Your task to perform on an android device: turn off wifi Image 0: 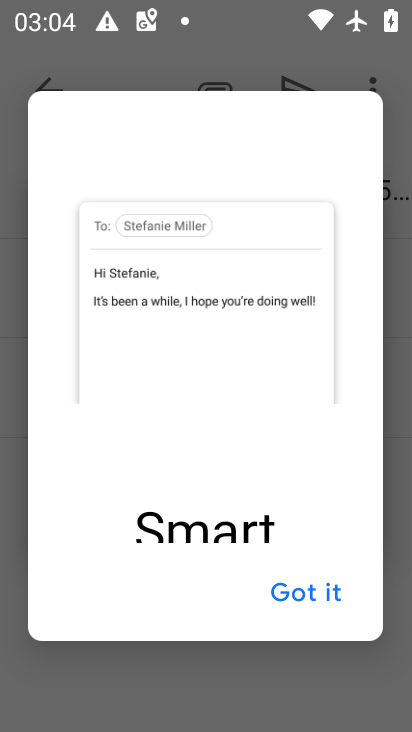
Step 0: press home button
Your task to perform on an android device: turn off wifi Image 1: 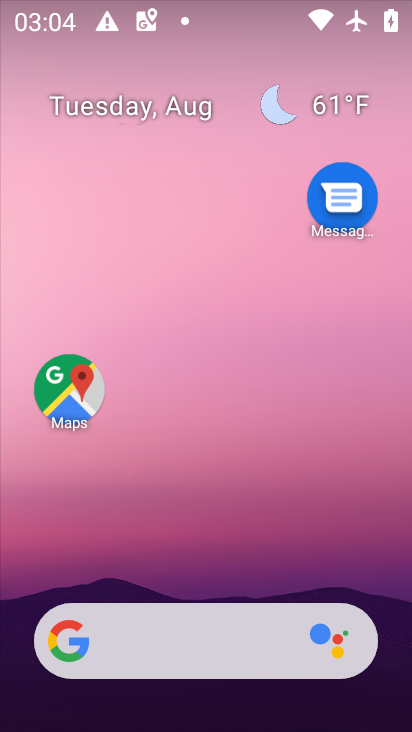
Step 1: drag from (197, 555) to (289, 63)
Your task to perform on an android device: turn off wifi Image 2: 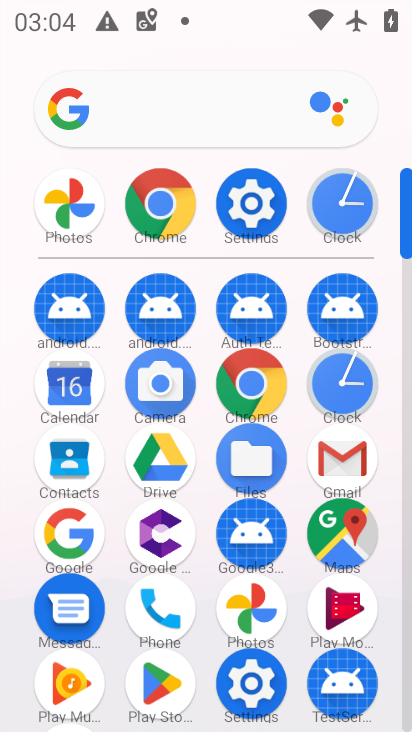
Step 2: click (243, 237)
Your task to perform on an android device: turn off wifi Image 3: 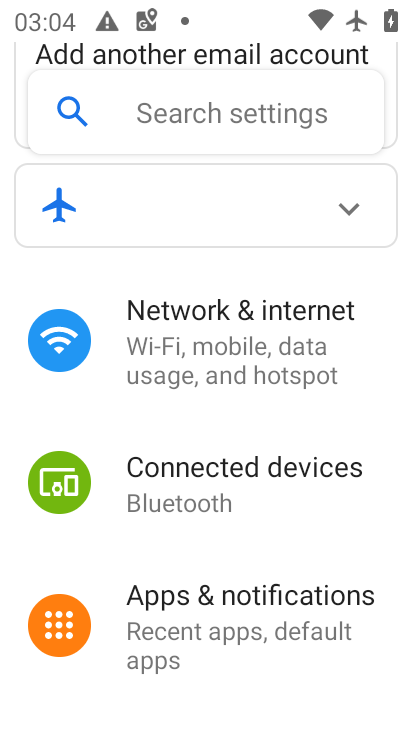
Step 3: click (252, 322)
Your task to perform on an android device: turn off wifi Image 4: 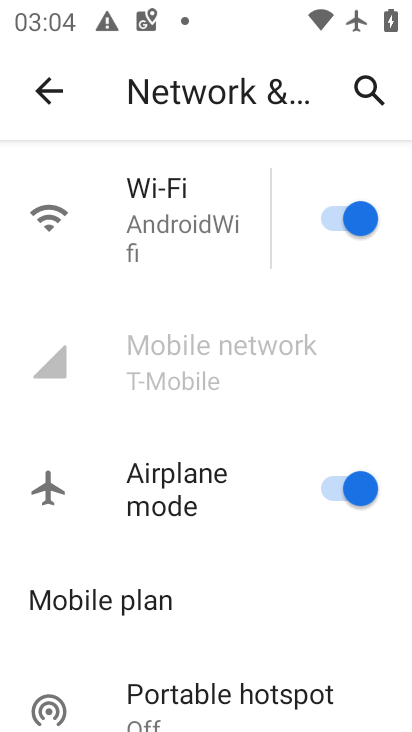
Step 4: click (346, 476)
Your task to perform on an android device: turn off wifi Image 5: 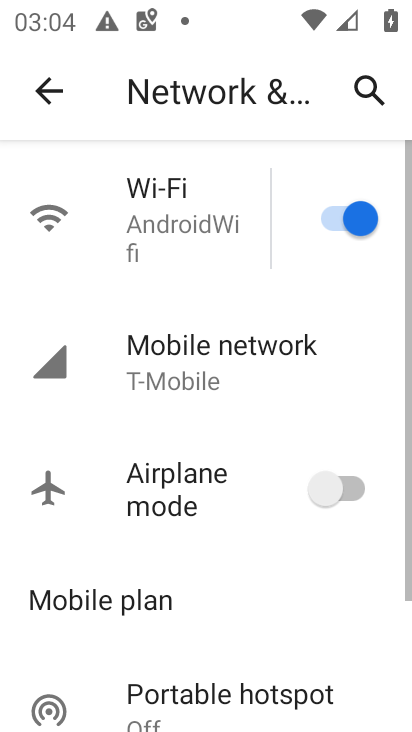
Step 5: click (359, 239)
Your task to perform on an android device: turn off wifi Image 6: 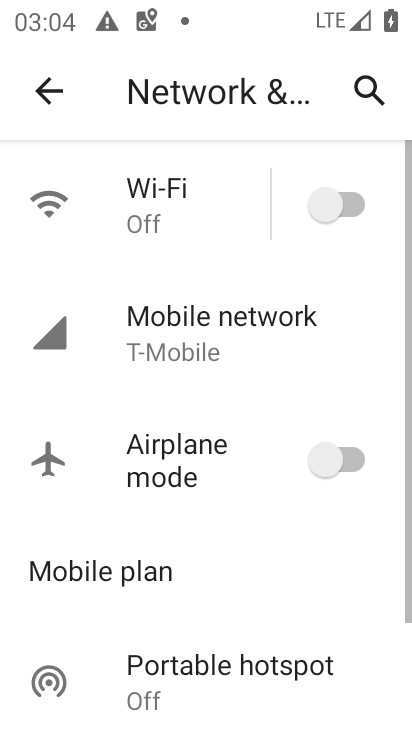
Step 6: task complete